Your task to perform on an android device: Search for a new desk on Ikea Image 0: 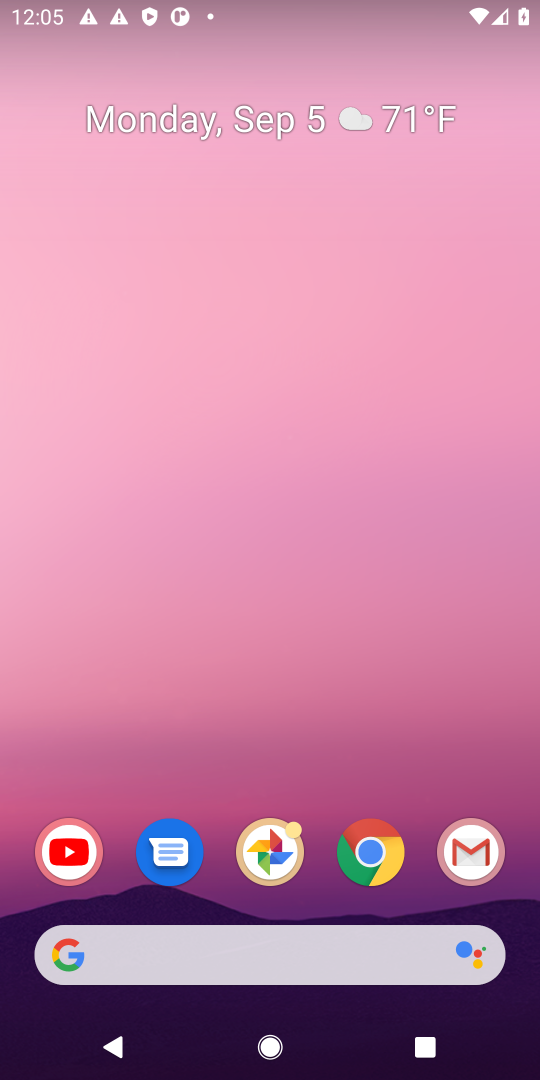
Step 0: click (370, 854)
Your task to perform on an android device: Search for a new desk on Ikea Image 1: 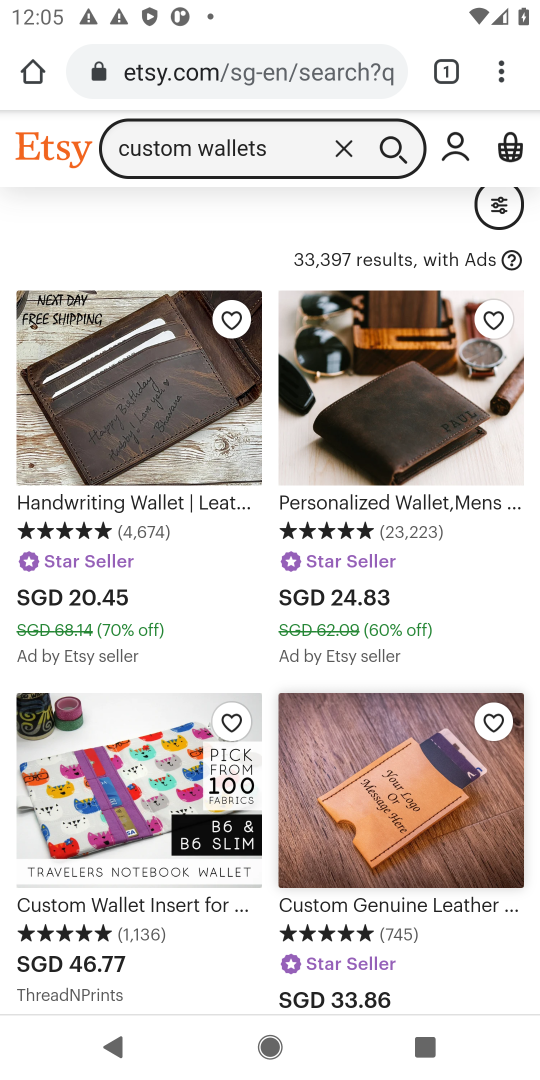
Step 1: click (272, 53)
Your task to perform on an android device: Search for a new desk on Ikea Image 2: 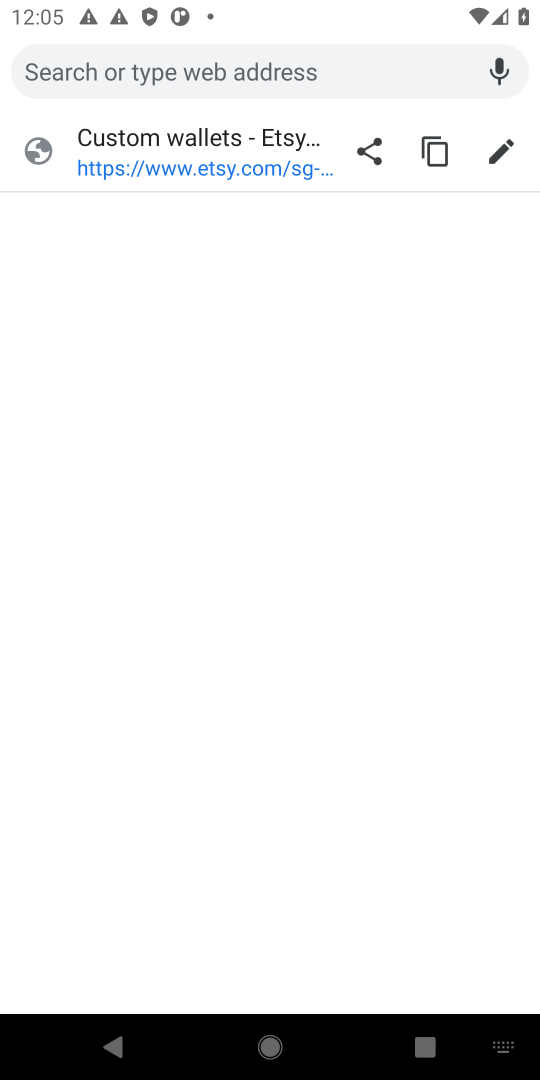
Step 2: type "Ikea"
Your task to perform on an android device: Search for a new desk on Ikea Image 3: 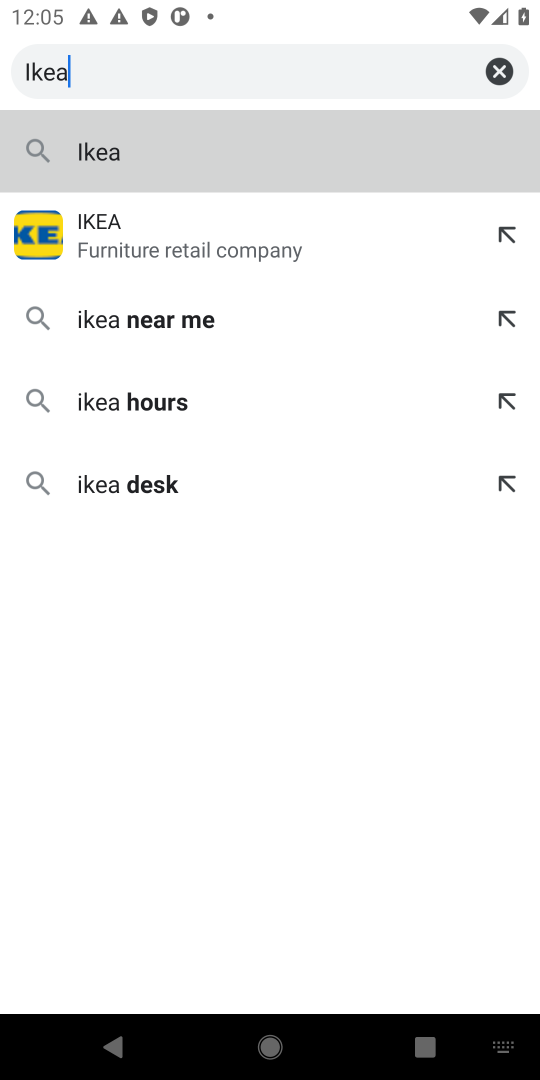
Step 3: click (122, 224)
Your task to perform on an android device: Search for a new desk on Ikea Image 4: 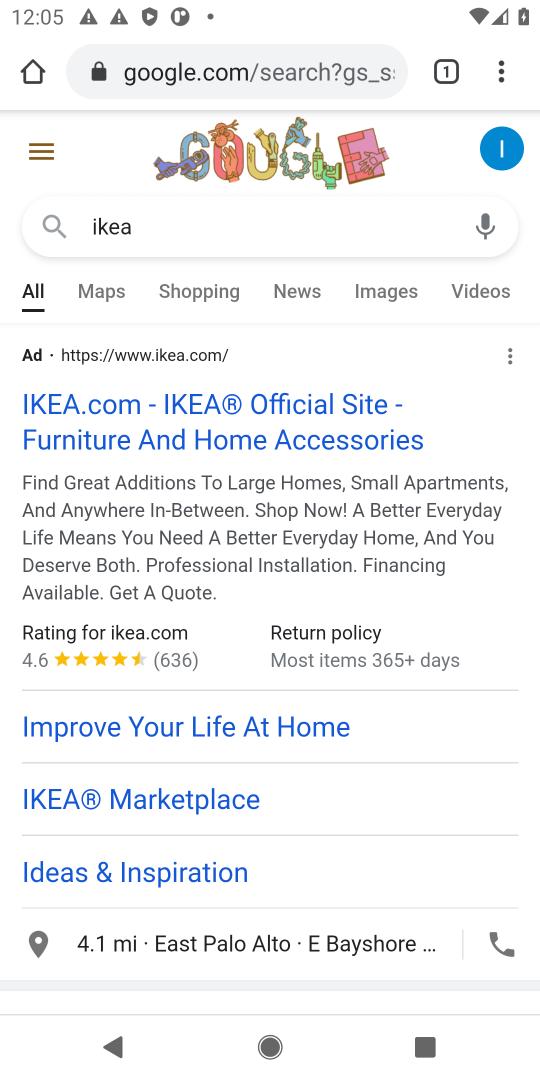
Step 4: click (56, 395)
Your task to perform on an android device: Search for a new desk on Ikea Image 5: 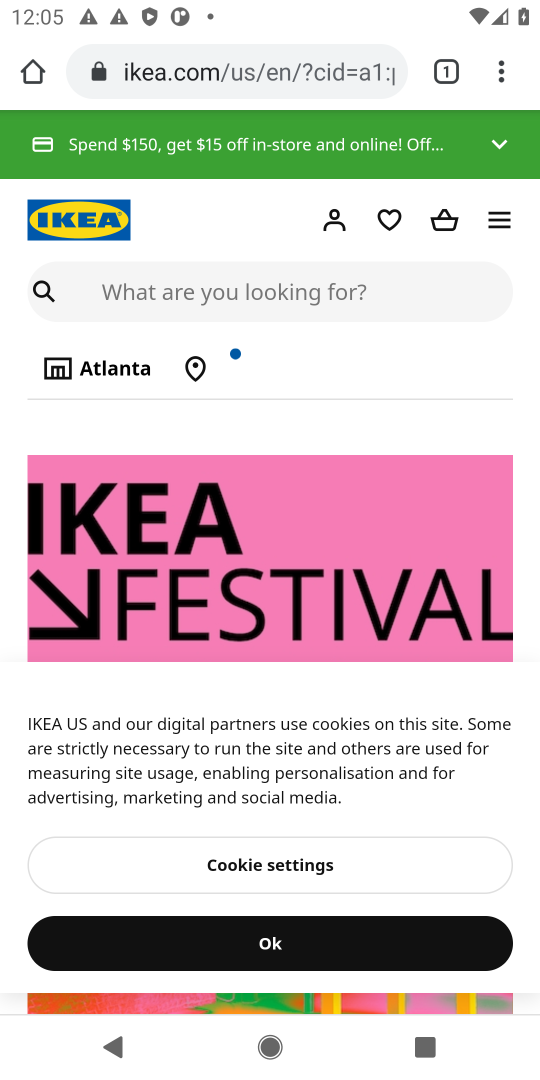
Step 5: click (167, 288)
Your task to perform on an android device: Search for a new desk on Ikea Image 6: 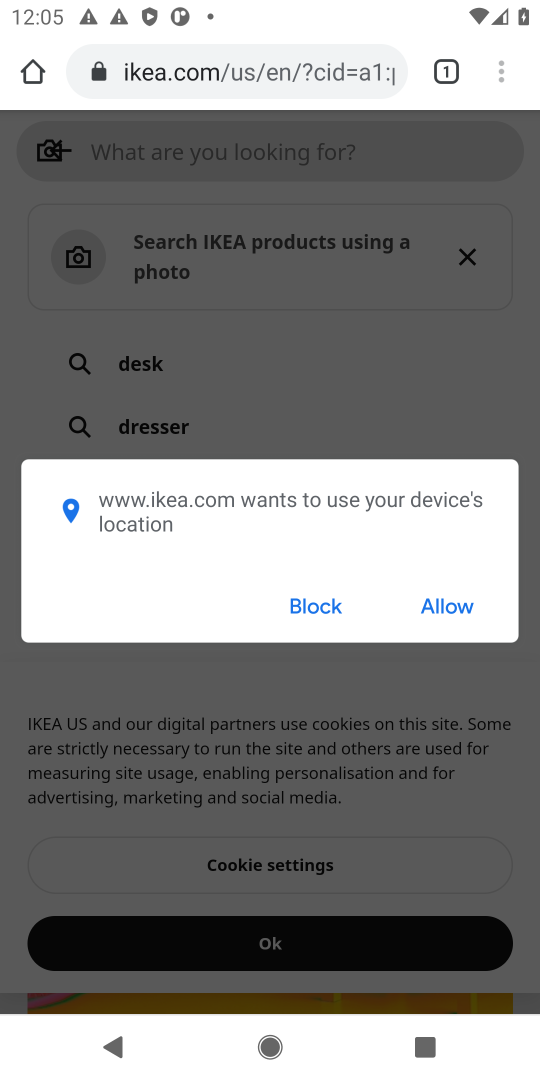
Step 6: click (437, 599)
Your task to perform on an android device: Search for a new desk on Ikea Image 7: 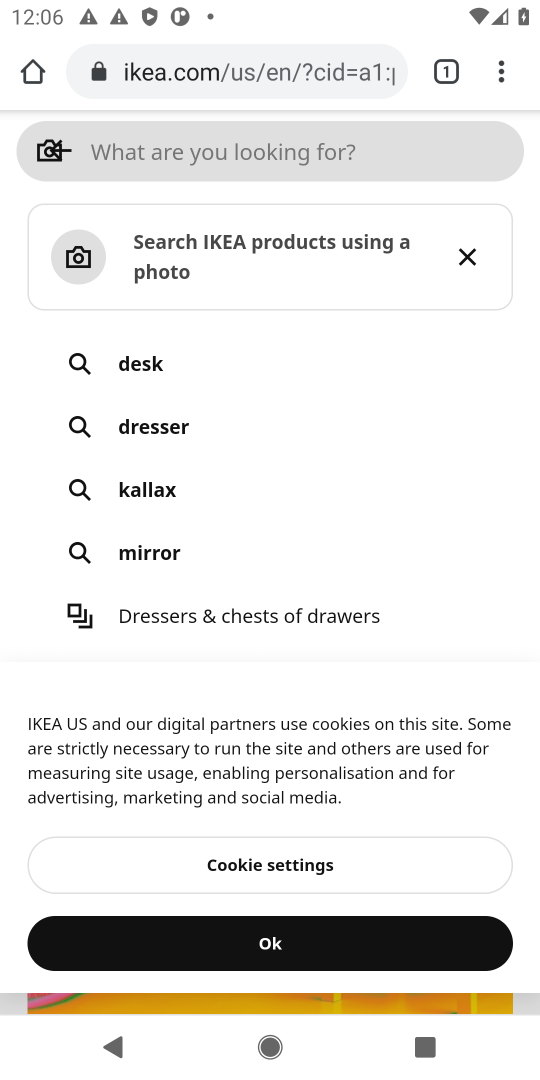
Step 7: click (260, 937)
Your task to perform on an android device: Search for a new desk on Ikea Image 8: 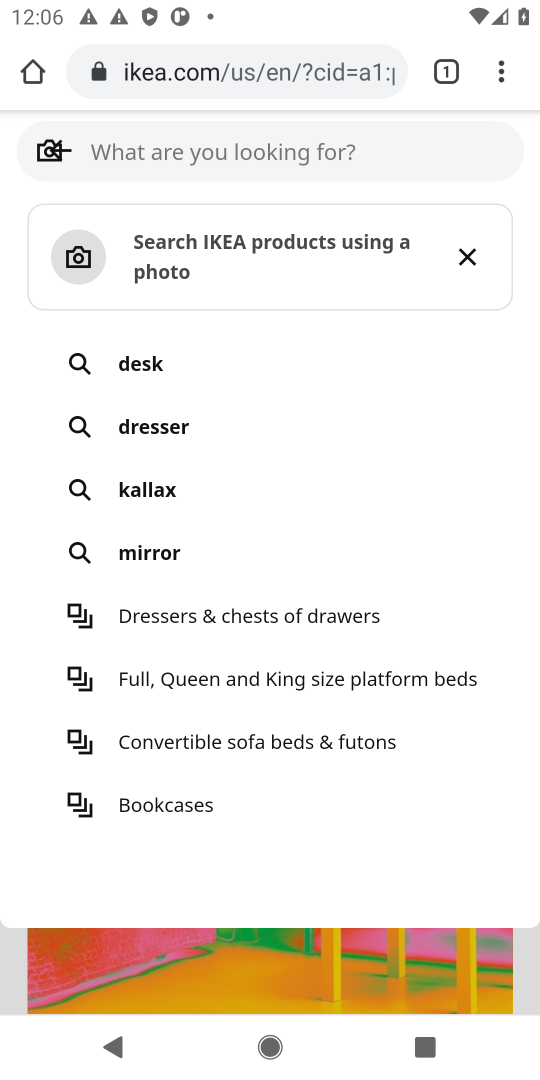
Step 8: click (141, 151)
Your task to perform on an android device: Search for a new desk on Ikea Image 9: 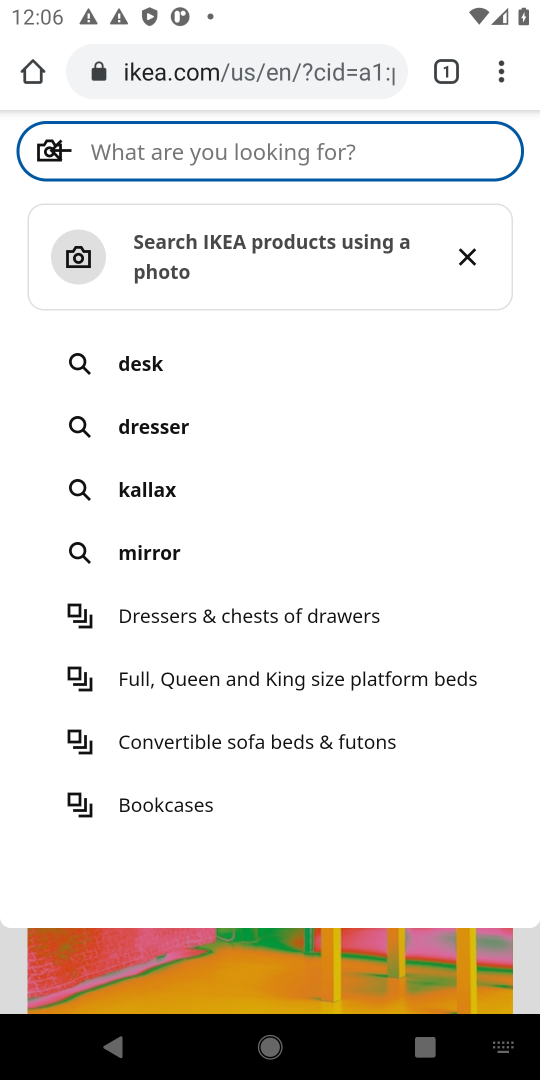
Step 9: click (137, 364)
Your task to perform on an android device: Search for a new desk on Ikea Image 10: 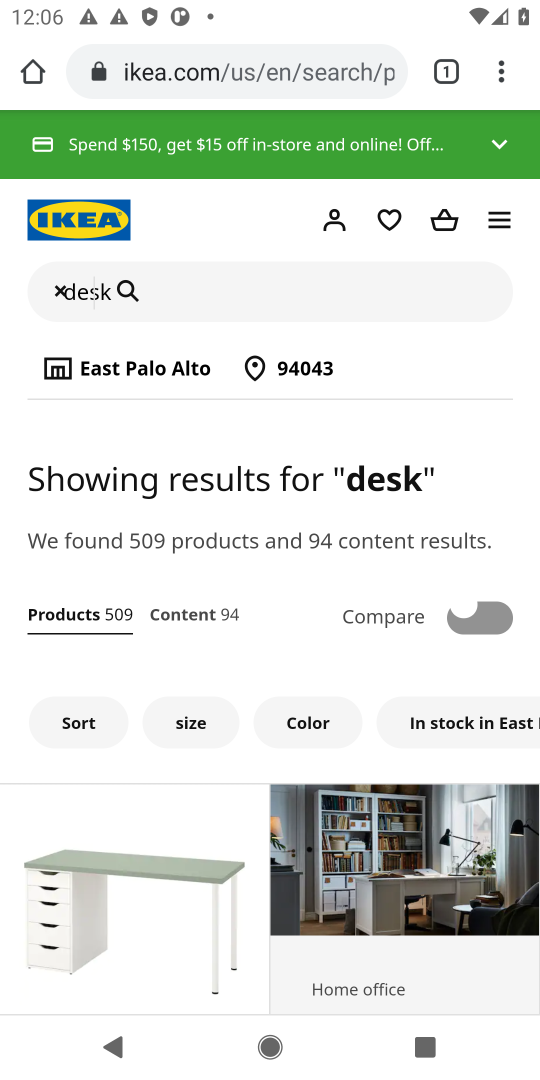
Step 10: task complete